Your task to perform on an android device: Open the stopwatch Image 0: 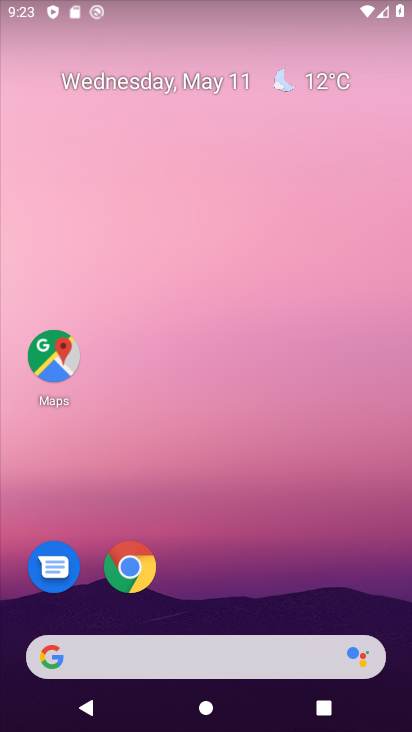
Step 0: drag from (179, 611) to (217, 353)
Your task to perform on an android device: Open the stopwatch Image 1: 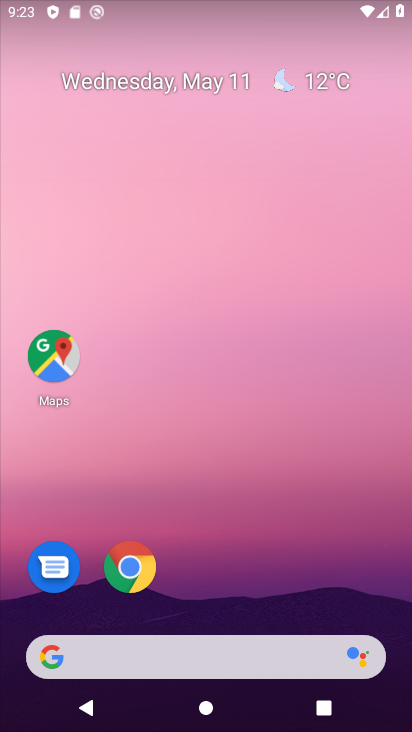
Step 1: drag from (177, 586) to (204, 219)
Your task to perform on an android device: Open the stopwatch Image 2: 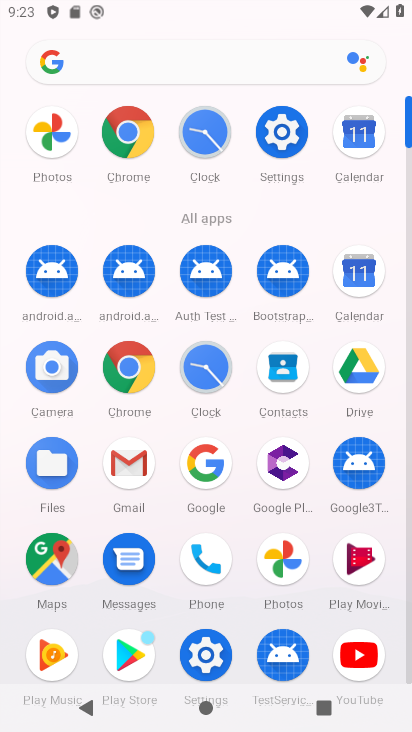
Step 2: click (202, 133)
Your task to perform on an android device: Open the stopwatch Image 3: 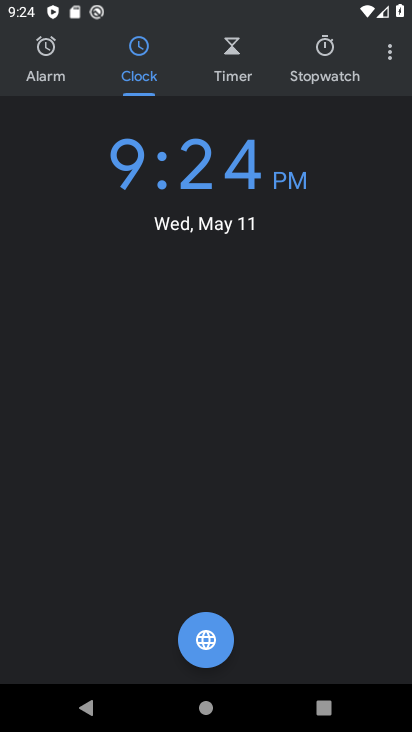
Step 3: click (337, 51)
Your task to perform on an android device: Open the stopwatch Image 4: 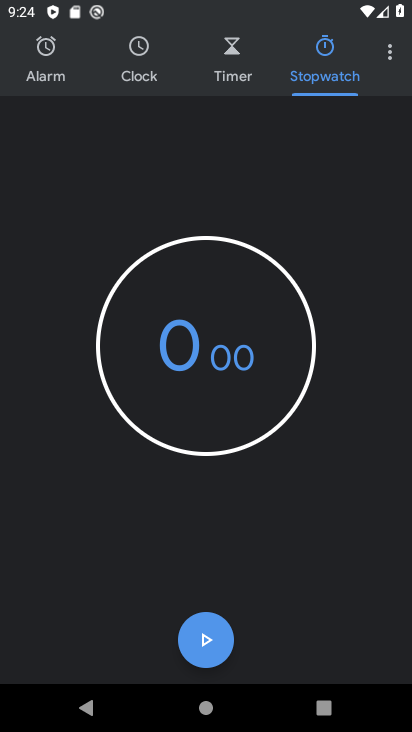
Step 4: task complete